Your task to perform on an android device: turn on priority inbox in the gmail app Image 0: 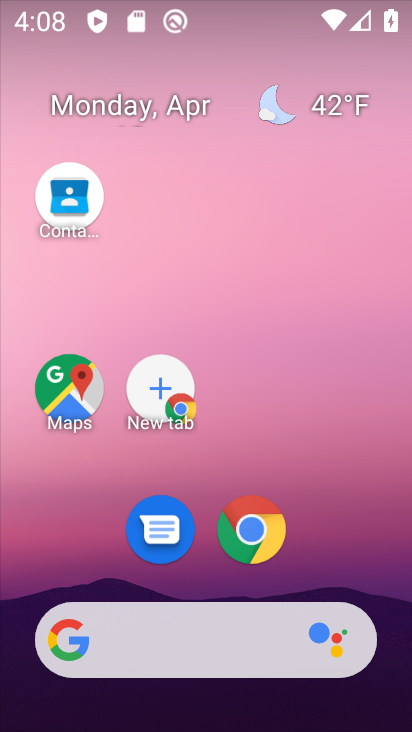
Step 0: drag from (192, 541) to (306, 41)
Your task to perform on an android device: turn on priority inbox in the gmail app Image 1: 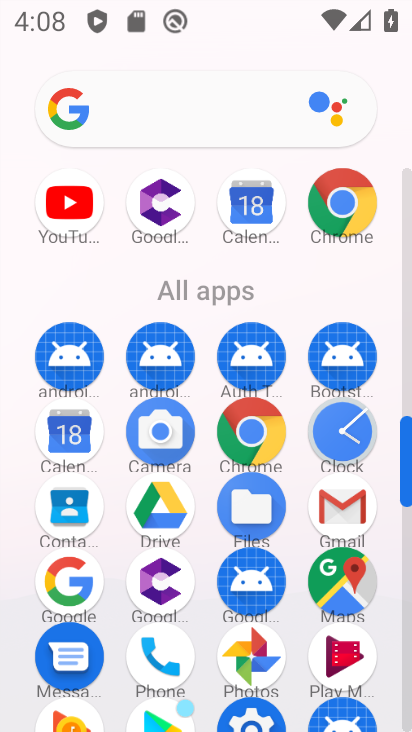
Step 1: click (339, 495)
Your task to perform on an android device: turn on priority inbox in the gmail app Image 2: 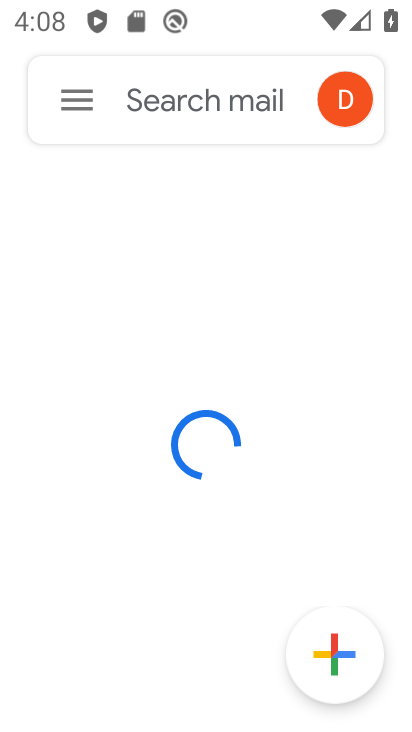
Step 2: click (56, 91)
Your task to perform on an android device: turn on priority inbox in the gmail app Image 3: 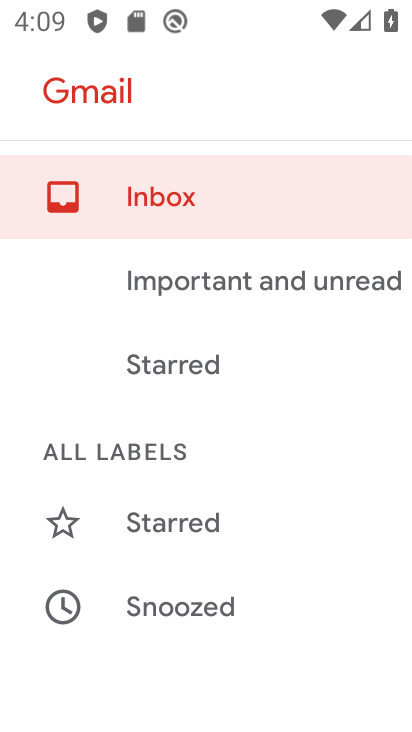
Step 3: drag from (184, 544) to (279, 68)
Your task to perform on an android device: turn on priority inbox in the gmail app Image 4: 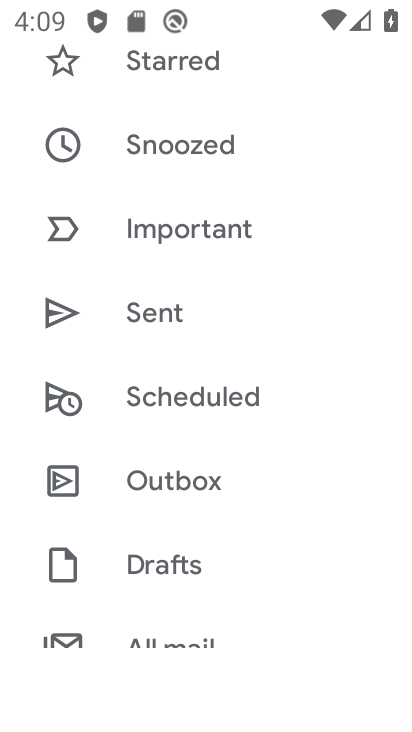
Step 4: drag from (163, 587) to (254, 39)
Your task to perform on an android device: turn on priority inbox in the gmail app Image 5: 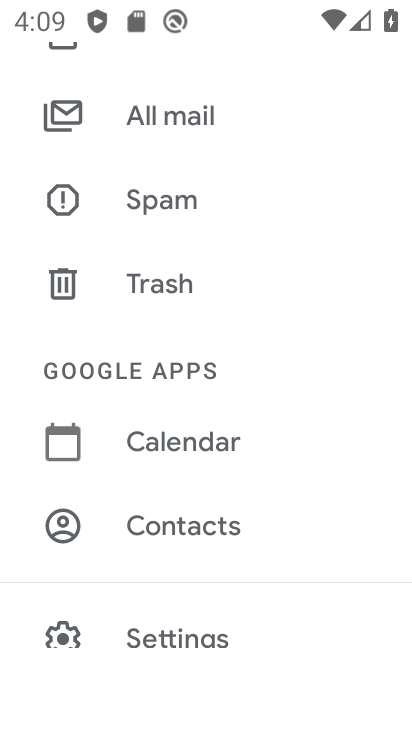
Step 5: drag from (178, 532) to (266, 123)
Your task to perform on an android device: turn on priority inbox in the gmail app Image 6: 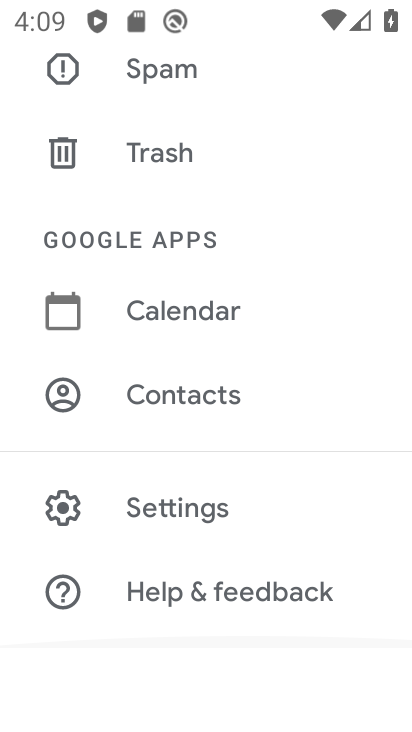
Step 6: click (186, 508)
Your task to perform on an android device: turn on priority inbox in the gmail app Image 7: 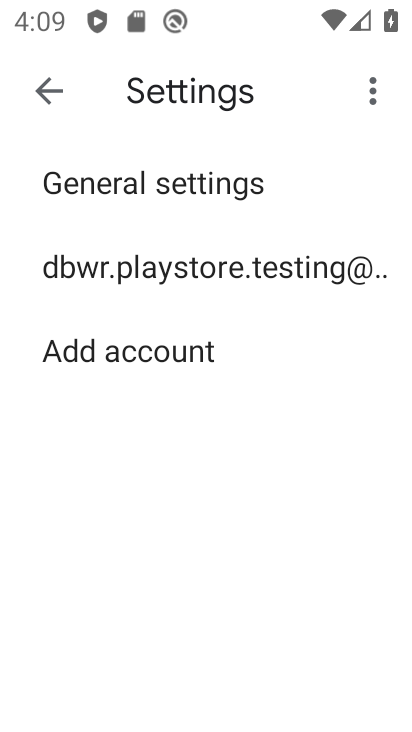
Step 7: click (169, 270)
Your task to perform on an android device: turn on priority inbox in the gmail app Image 8: 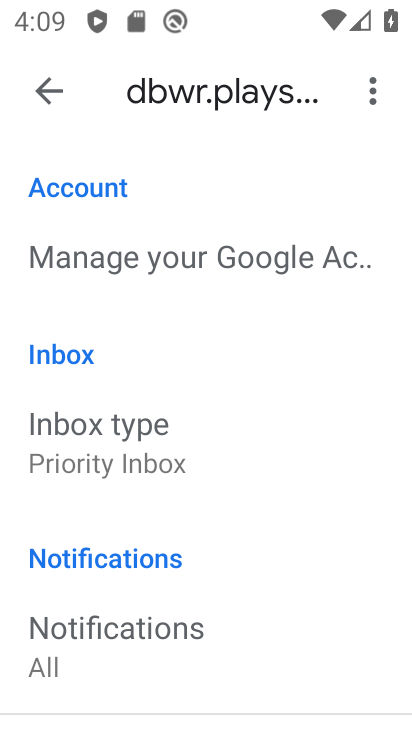
Step 8: click (116, 430)
Your task to perform on an android device: turn on priority inbox in the gmail app Image 9: 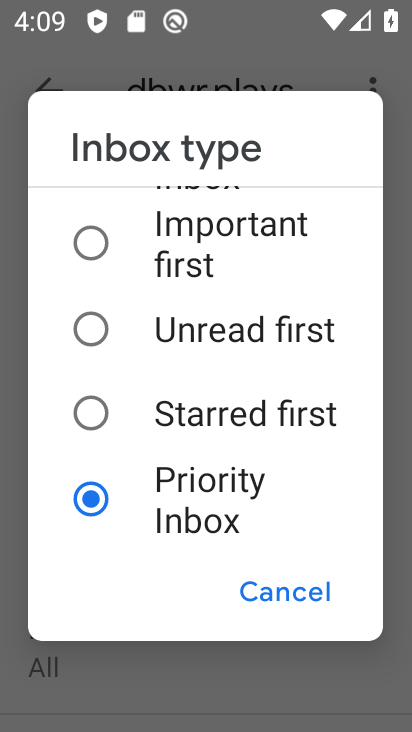
Step 9: task complete